Your task to perform on an android device: turn off picture-in-picture Image 0: 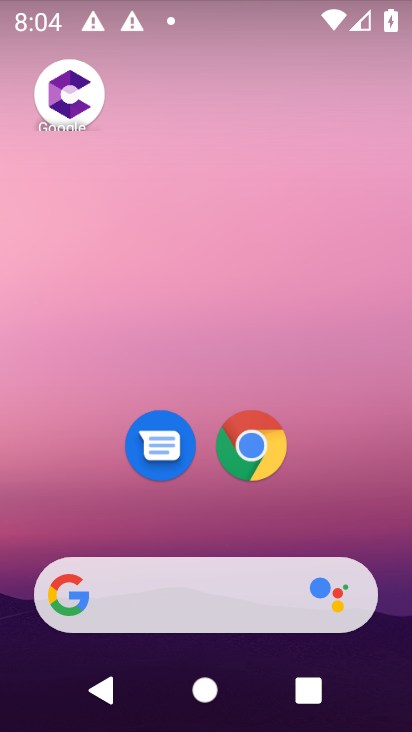
Step 0: click (247, 415)
Your task to perform on an android device: turn off picture-in-picture Image 1: 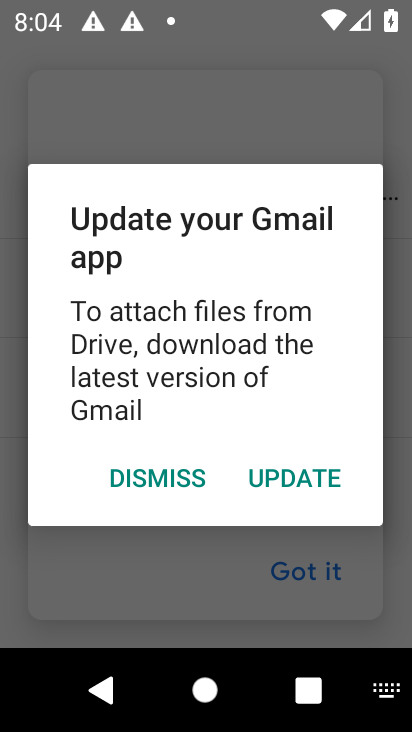
Step 1: press home button
Your task to perform on an android device: turn off picture-in-picture Image 2: 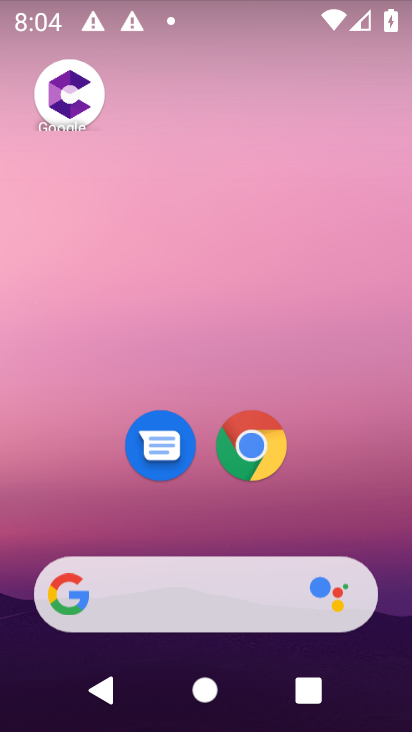
Step 2: click (251, 447)
Your task to perform on an android device: turn off picture-in-picture Image 3: 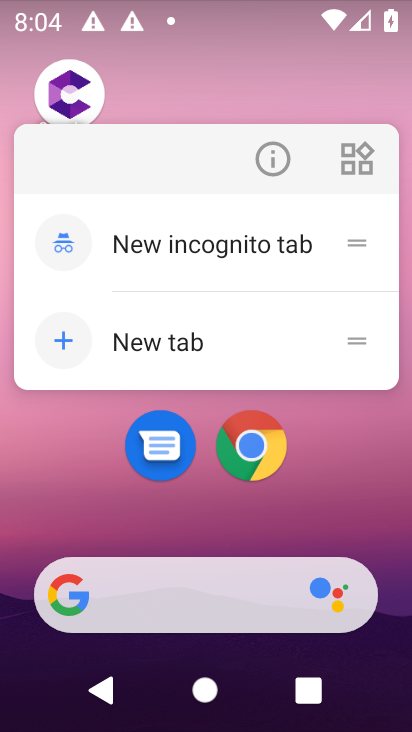
Step 3: click (270, 155)
Your task to perform on an android device: turn off picture-in-picture Image 4: 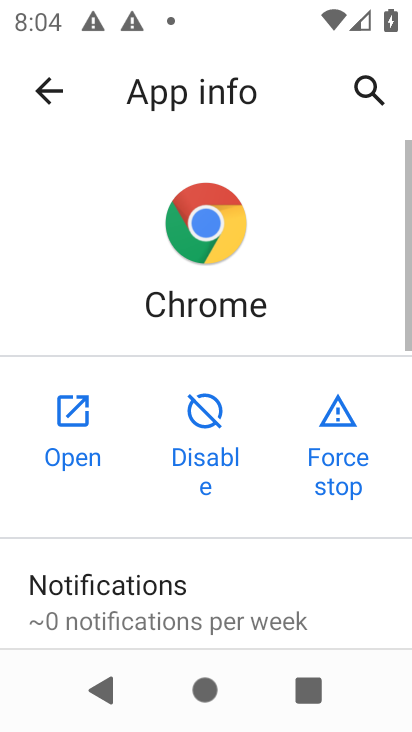
Step 4: drag from (190, 589) to (201, 53)
Your task to perform on an android device: turn off picture-in-picture Image 5: 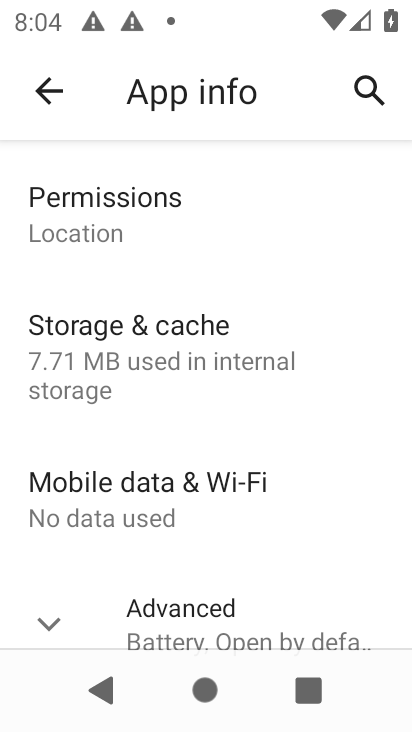
Step 5: click (61, 620)
Your task to perform on an android device: turn off picture-in-picture Image 6: 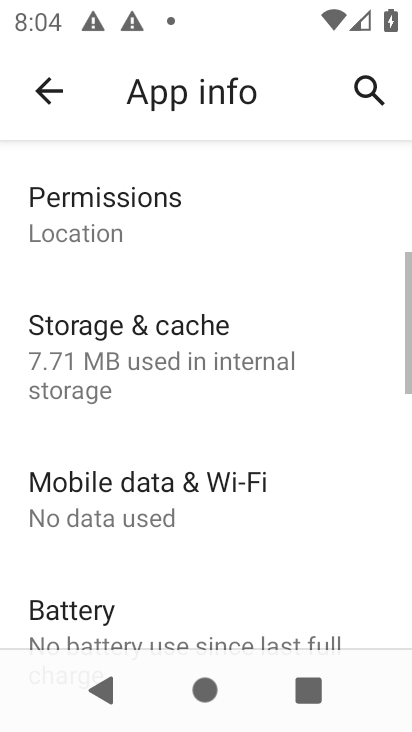
Step 6: drag from (169, 590) to (210, 43)
Your task to perform on an android device: turn off picture-in-picture Image 7: 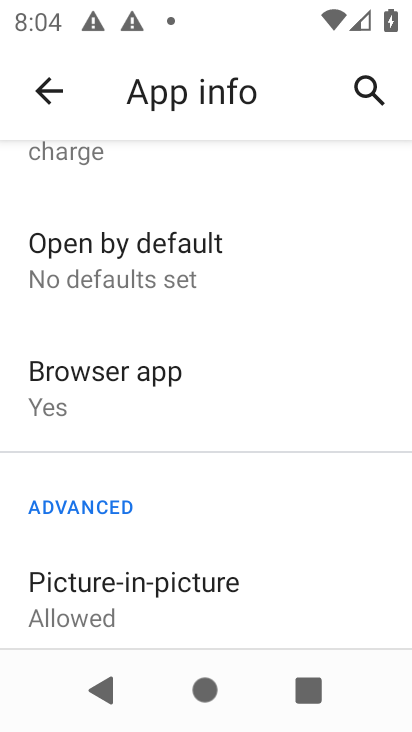
Step 7: click (146, 601)
Your task to perform on an android device: turn off picture-in-picture Image 8: 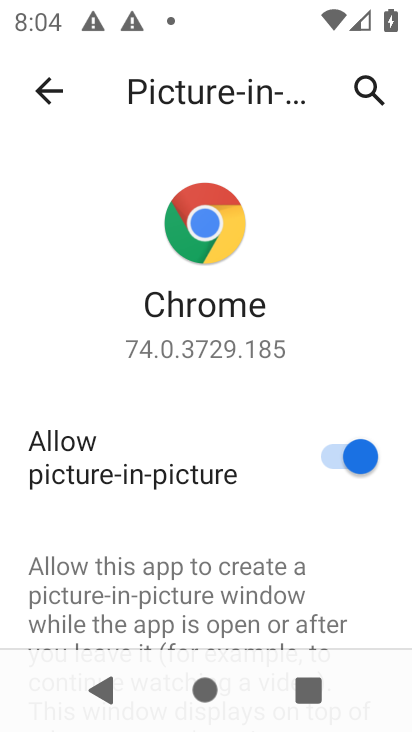
Step 8: click (337, 455)
Your task to perform on an android device: turn off picture-in-picture Image 9: 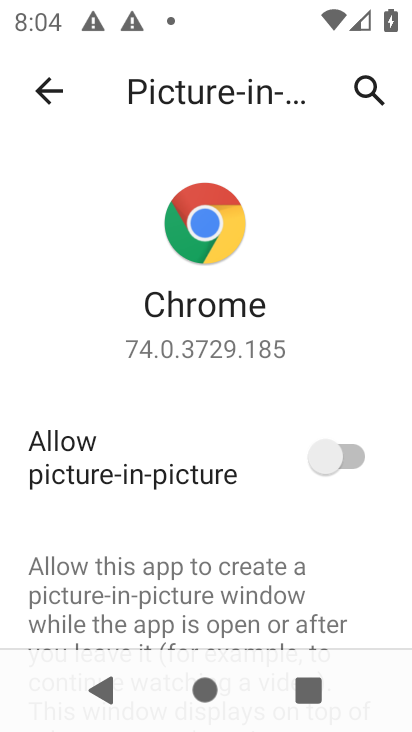
Step 9: task complete